Your task to perform on an android device: Open Chrome and go to settings Image 0: 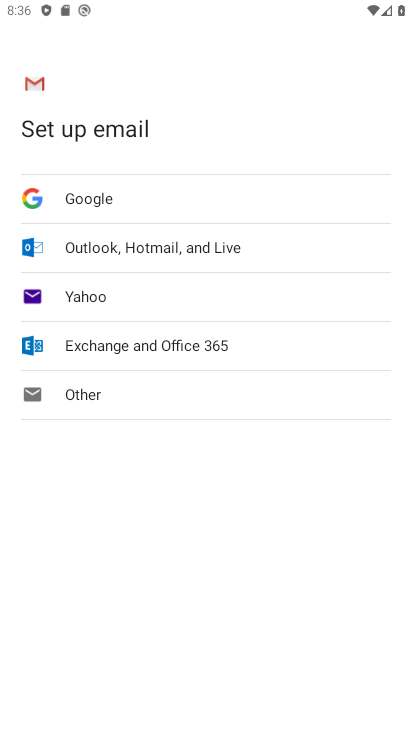
Step 0: press home button
Your task to perform on an android device: Open Chrome and go to settings Image 1: 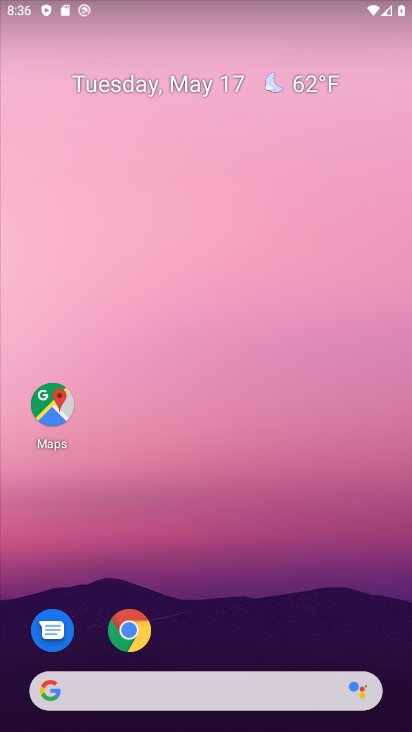
Step 1: click (130, 634)
Your task to perform on an android device: Open Chrome and go to settings Image 2: 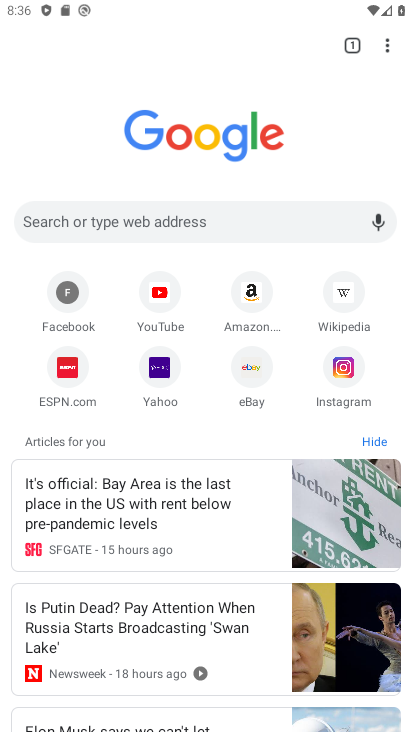
Step 2: click (389, 50)
Your task to perform on an android device: Open Chrome and go to settings Image 3: 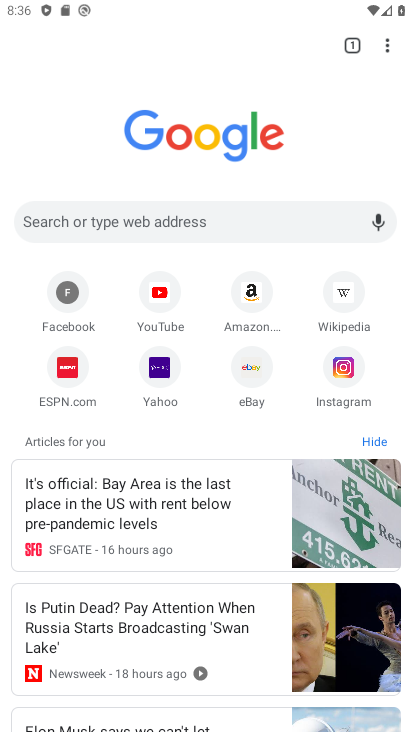
Step 3: click (390, 49)
Your task to perform on an android device: Open Chrome and go to settings Image 4: 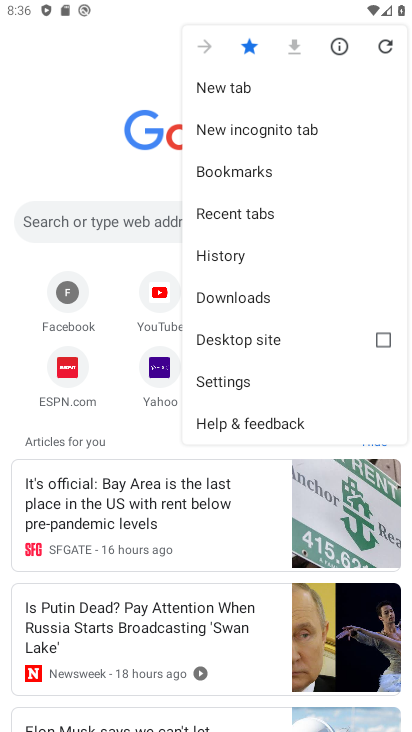
Step 4: click (227, 387)
Your task to perform on an android device: Open Chrome and go to settings Image 5: 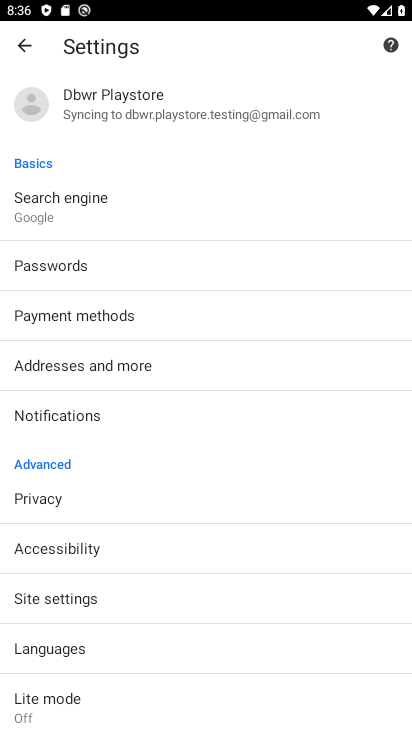
Step 5: task complete